Your task to perform on an android device: Open Youtube and go to "Your channel" Image 0: 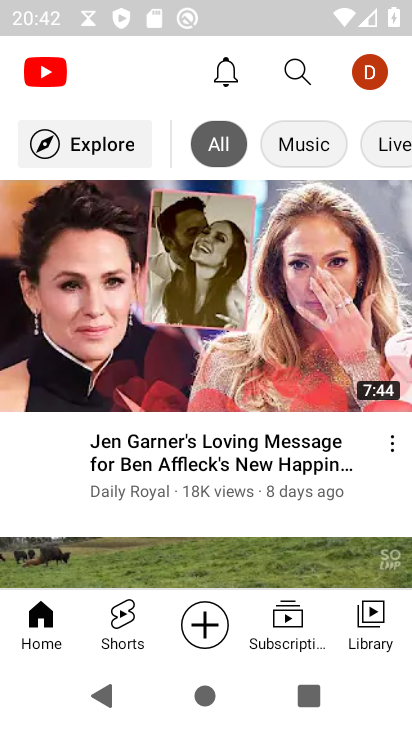
Step 0: press home button
Your task to perform on an android device: Open Youtube and go to "Your channel" Image 1: 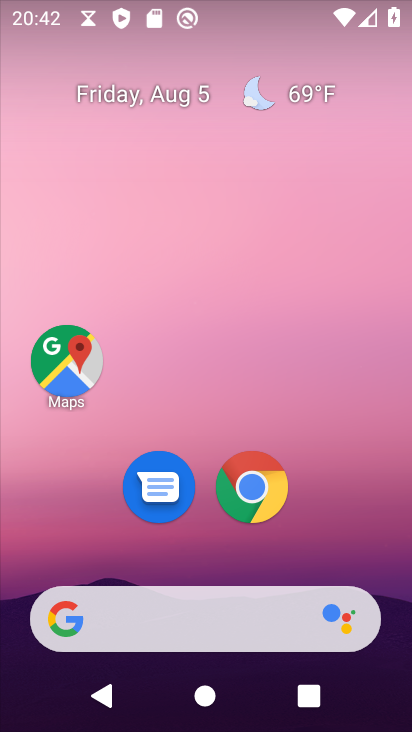
Step 1: drag from (245, 612) to (322, 20)
Your task to perform on an android device: Open Youtube and go to "Your channel" Image 2: 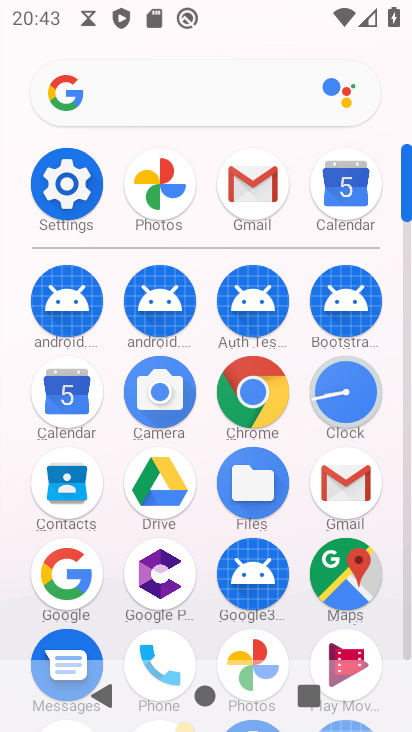
Step 2: drag from (223, 644) to (360, 100)
Your task to perform on an android device: Open Youtube and go to "Your channel" Image 3: 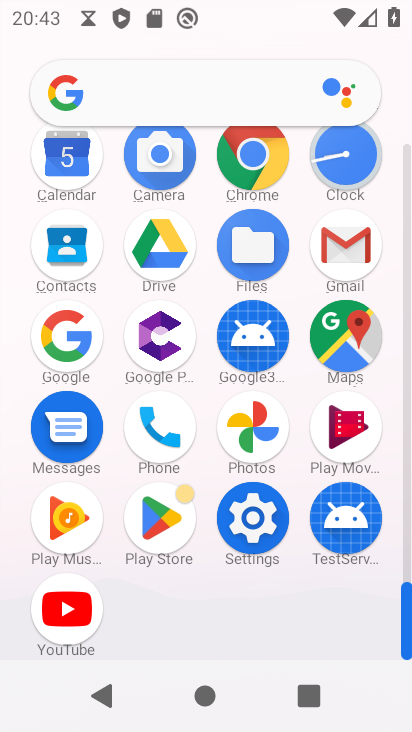
Step 3: click (69, 606)
Your task to perform on an android device: Open Youtube and go to "Your channel" Image 4: 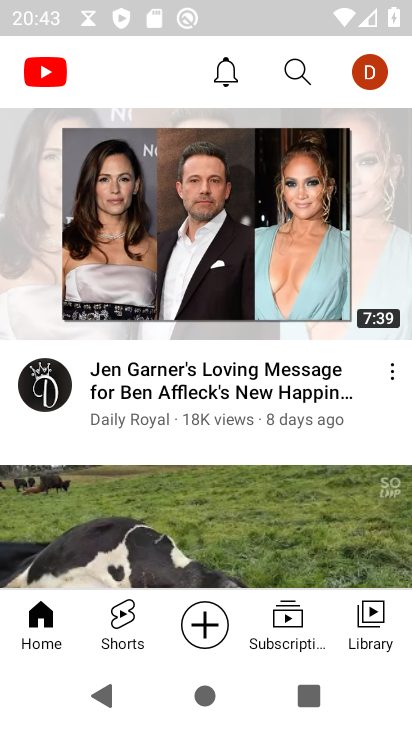
Step 4: click (376, 71)
Your task to perform on an android device: Open Youtube and go to "Your channel" Image 5: 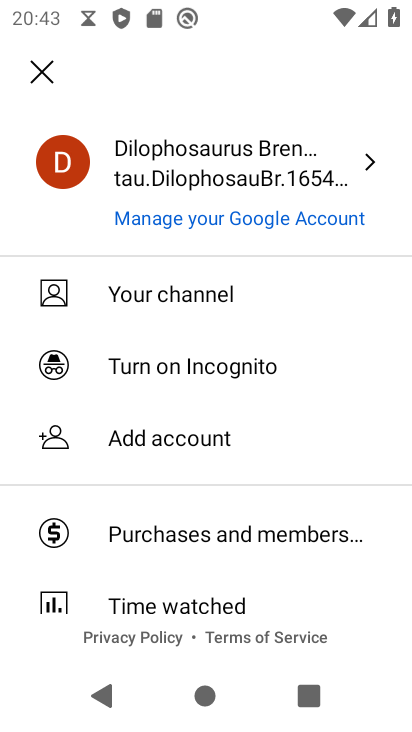
Step 5: click (173, 294)
Your task to perform on an android device: Open Youtube and go to "Your channel" Image 6: 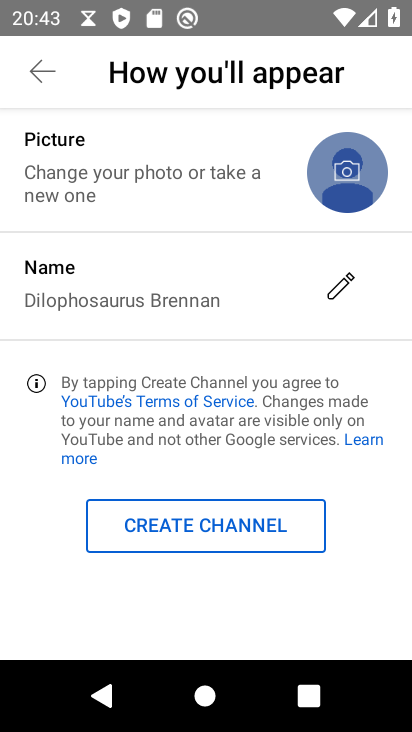
Step 6: task complete